Your task to perform on an android device: turn on notifications settings in the gmail app Image 0: 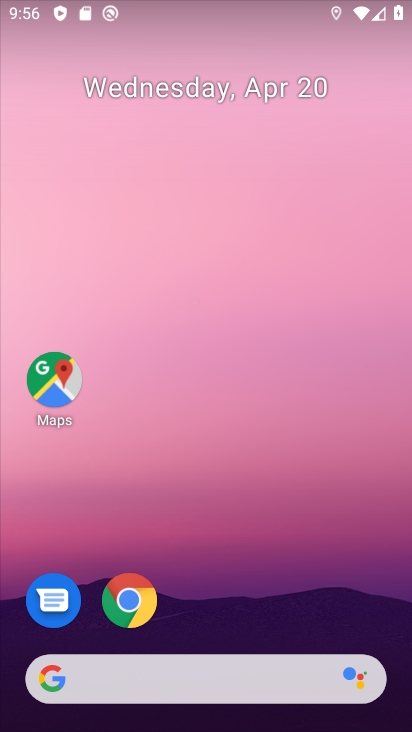
Step 0: drag from (253, 678) to (265, 254)
Your task to perform on an android device: turn on notifications settings in the gmail app Image 1: 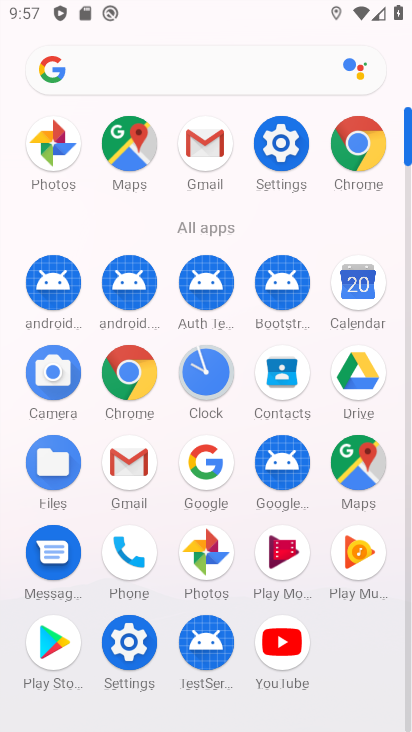
Step 1: click (194, 135)
Your task to perform on an android device: turn on notifications settings in the gmail app Image 2: 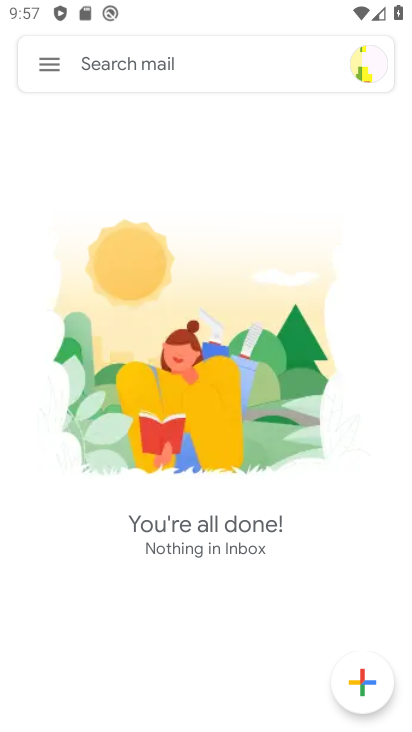
Step 2: click (41, 63)
Your task to perform on an android device: turn on notifications settings in the gmail app Image 3: 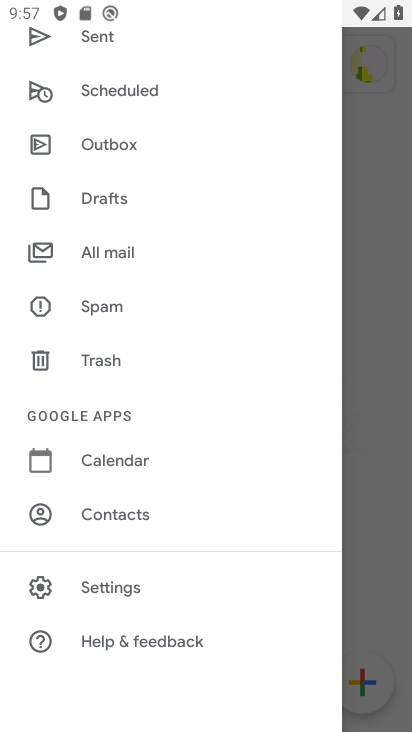
Step 3: click (163, 575)
Your task to perform on an android device: turn on notifications settings in the gmail app Image 4: 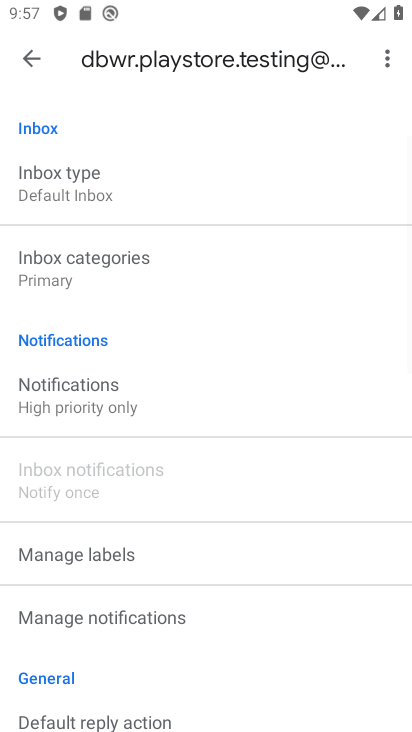
Step 4: click (112, 389)
Your task to perform on an android device: turn on notifications settings in the gmail app Image 5: 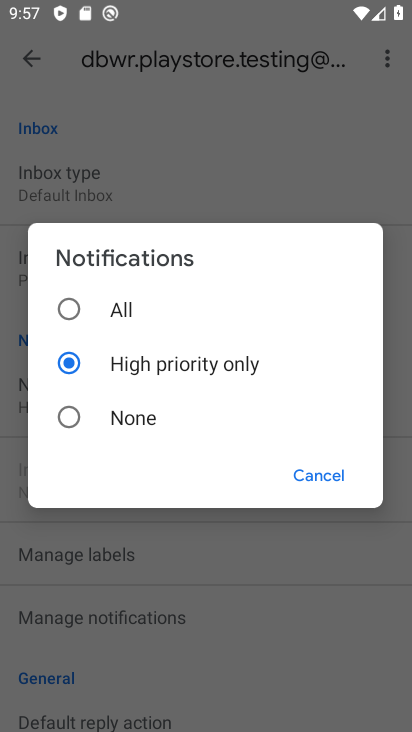
Step 5: click (139, 307)
Your task to perform on an android device: turn on notifications settings in the gmail app Image 6: 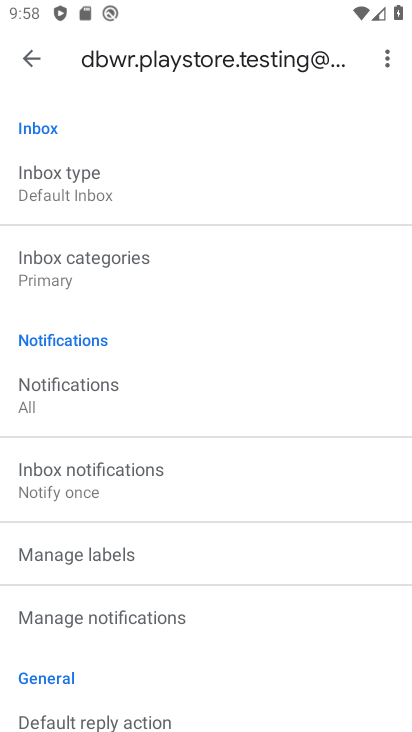
Step 6: task complete